Your task to perform on an android device: manage bookmarks in the chrome app Image 0: 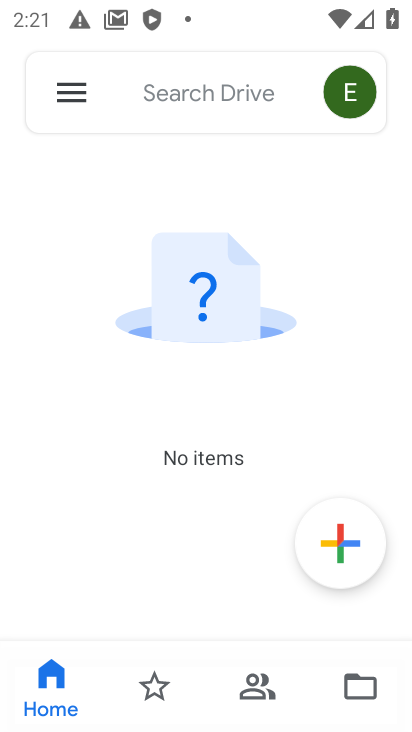
Step 0: press back button
Your task to perform on an android device: manage bookmarks in the chrome app Image 1: 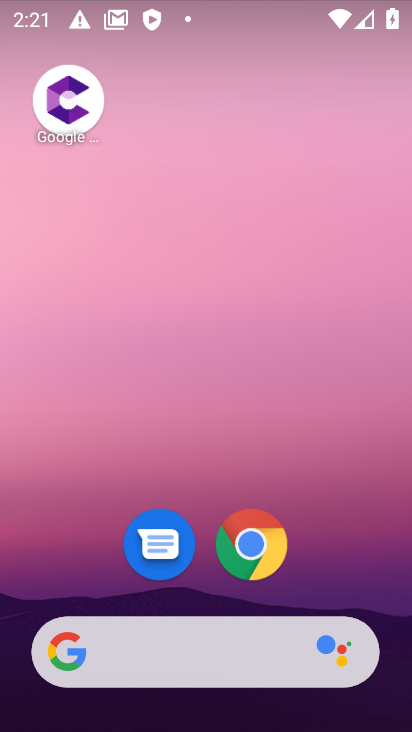
Step 1: drag from (271, 610) to (281, 79)
Your task to perform on an android device: manage bookmarks in the chrome app Image 2: 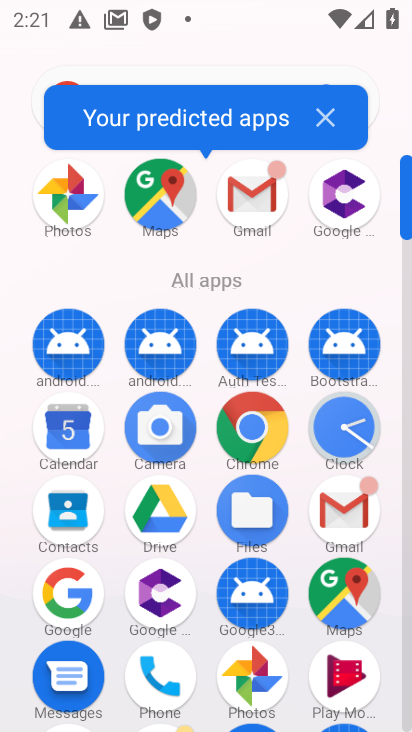
Step 2: click (265, 446)
Your task to perform on an android device: manage bookmarks in the chrome app Image 3: 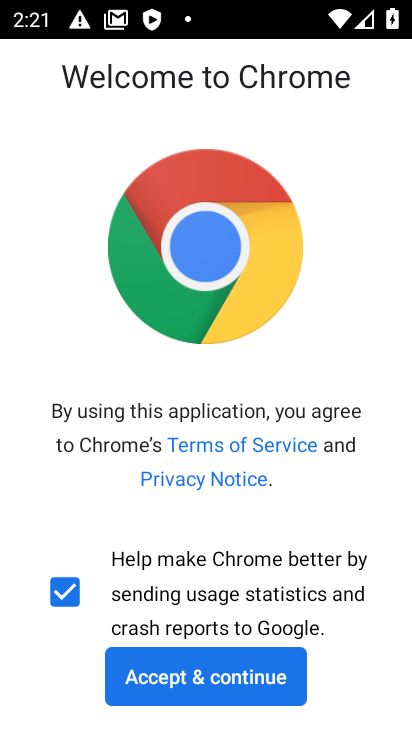
Step 3: click (298, 688)
Your task to perform on an android device: manage bookmarks in the chrome app Image 4: 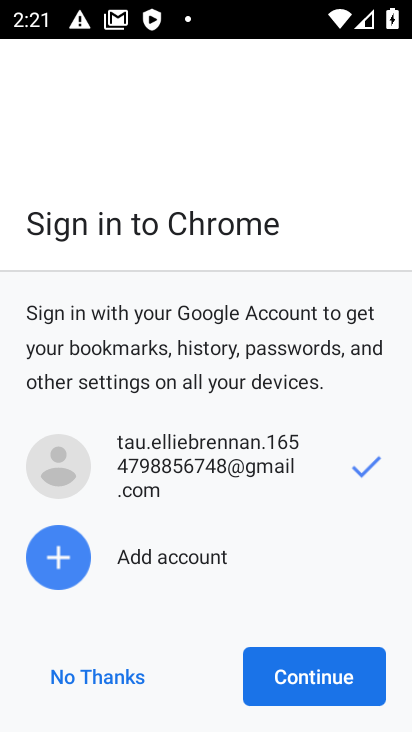
Step 4: click (299, 681)
Your task to perform on an android device: manage bookmarks in the chrome app Image 5: 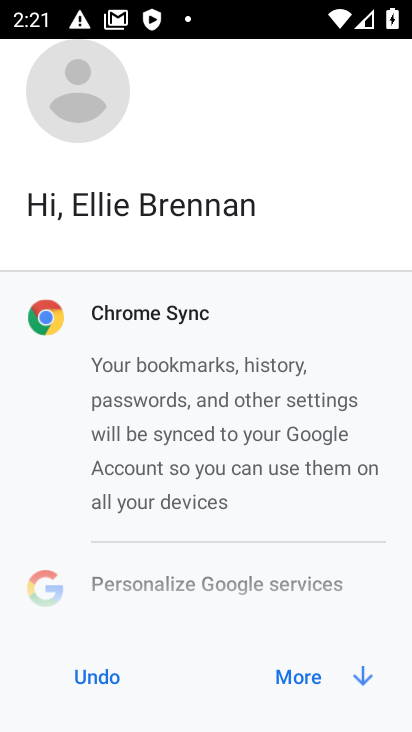
Step 5: click (303, 679)
Your task to perform on an android device: manage bookmarks in the chrome app Image 6: 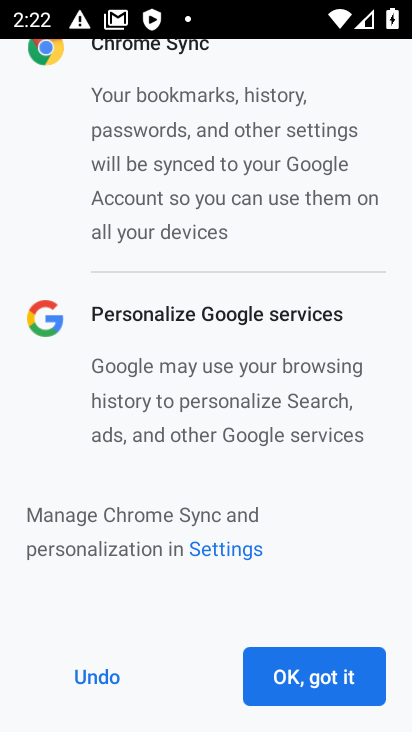
Step 6: click (309, 675)
Your task to perform on an android device: manage bookmarks in the chrome app Image 7: 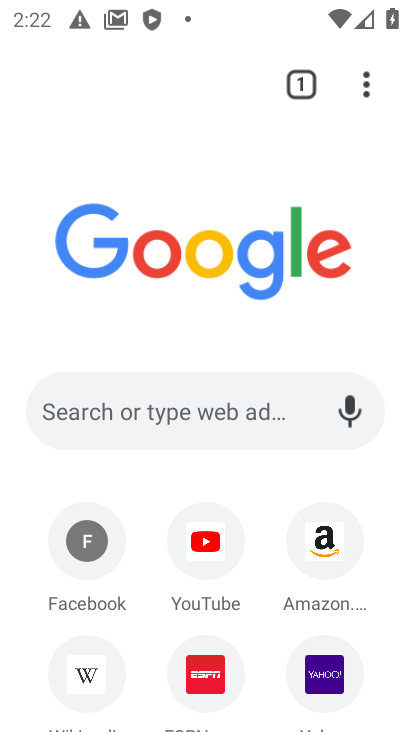
Step 7: drag from (371, 80) to (73, 330)
Your task to perform on an android device: manage bookmarks in the chrome app Image 8: 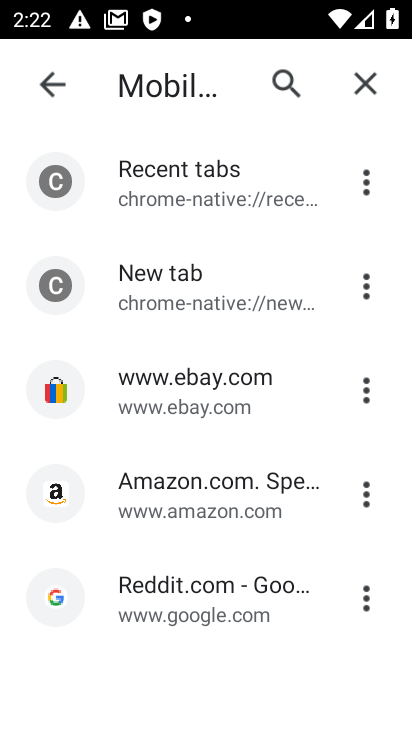
Step 8: click (361, 194)
Your task to perform on an android device: manage bookmarks in the chrome app Image 9: 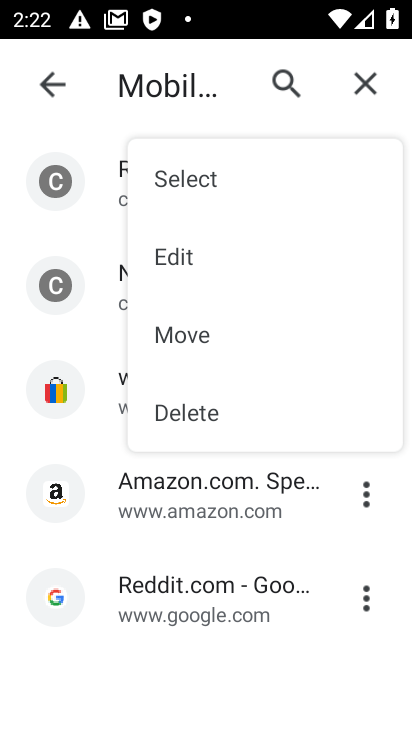
Step 9: click (224, 264)
Your task to perform on an android device: manage bookmarks in the chrome app Image 10: 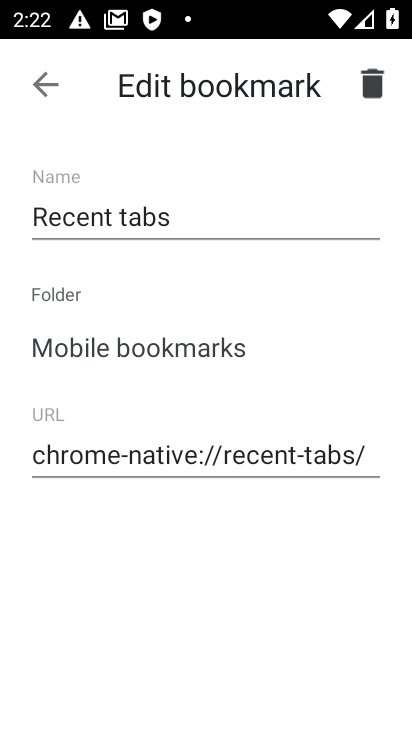
Step 10: task complete